Your task to perform on an android device: turn on sleep mode Image 0: 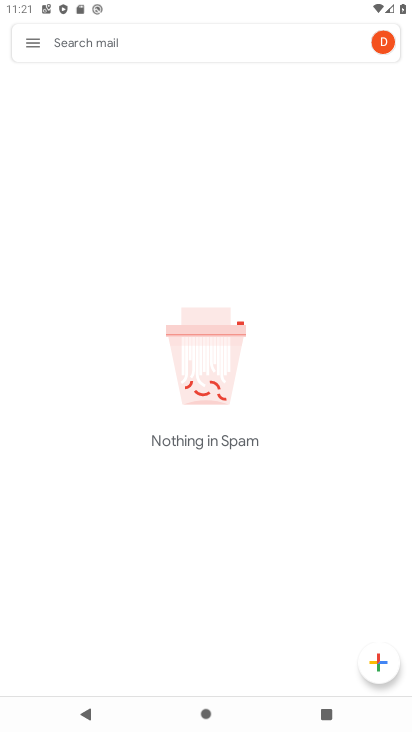
Step 0: press home button
Your task to perform on an android device: turn on sleep mode Image 1: 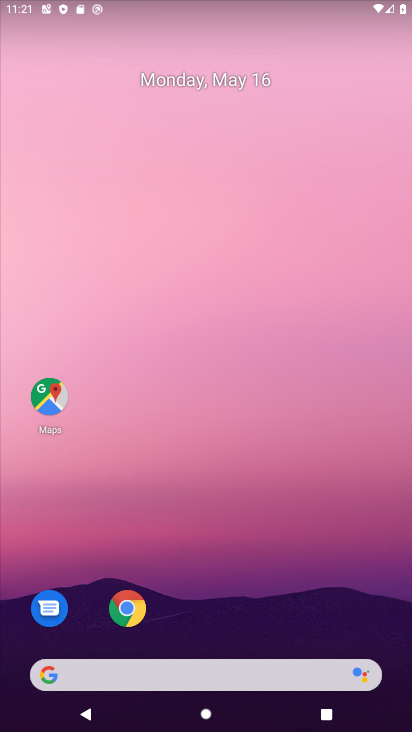
Step 1: drag from (199, 672) to (329, 134)
Your task to perform on an android device: turn on sleep mode Image 2: 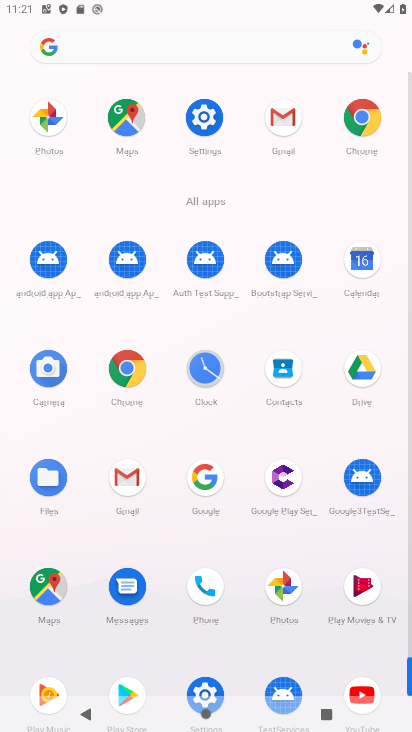
Step 2: click (208, 118)
Your task to perform on an android device: turn on sleep mode Image 3: 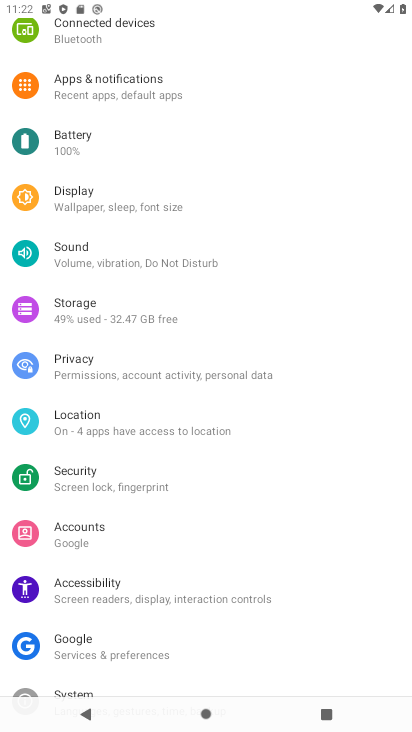
Step 3: click (130, 205)
Your task to perform on an android device: turn on sleep mode Image 4: 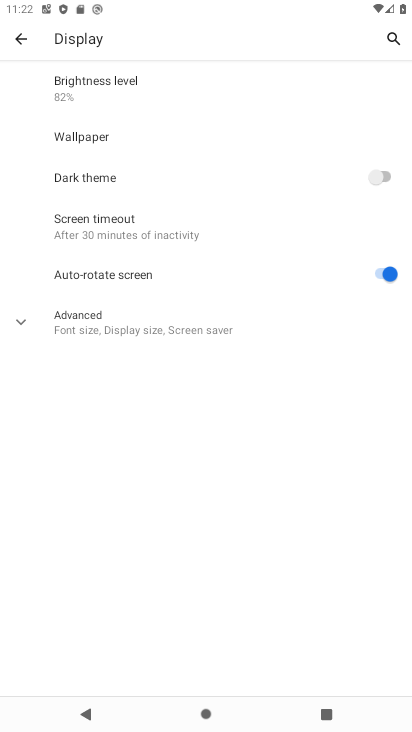
Step 4: task complete